Your task to perform on an android device: Open Google Maps Image 0: 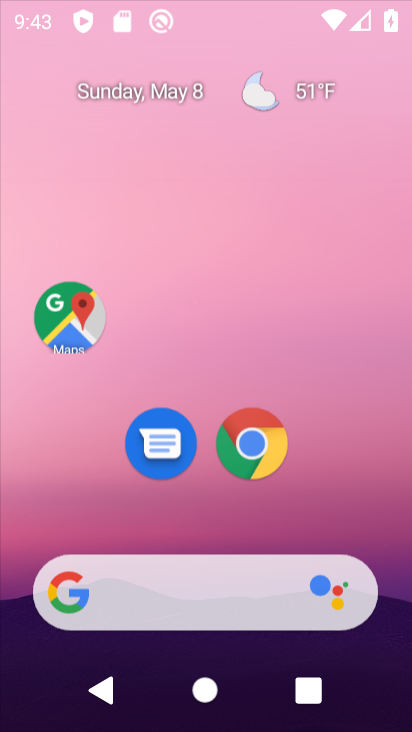
Step 0: press home button
Your task to perform on an android device: Open Google Maps Image 1: 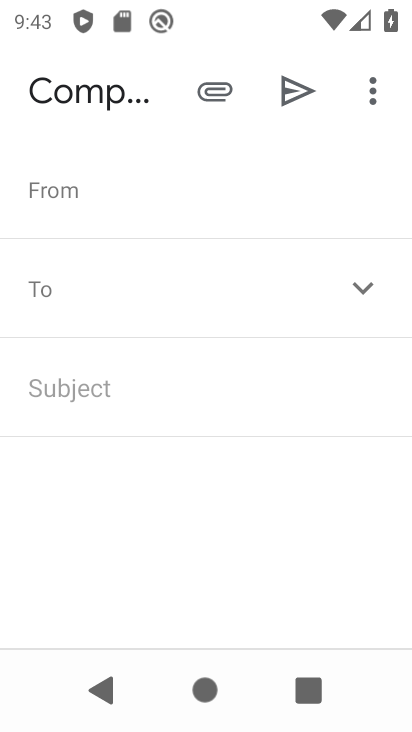
Step 1: click (190, 0)
Your task to perform on an android device: Open Google Maps Image 2: 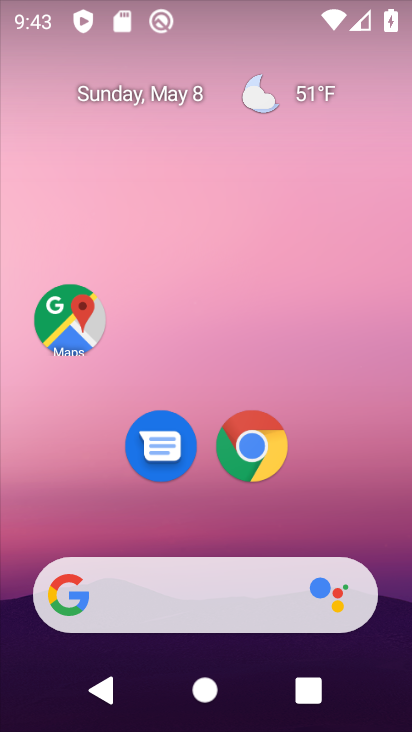
Step 2: drag from (205, 537) to (190, 23)
Your task to perform on an android device: Open Google Maps Image 3: 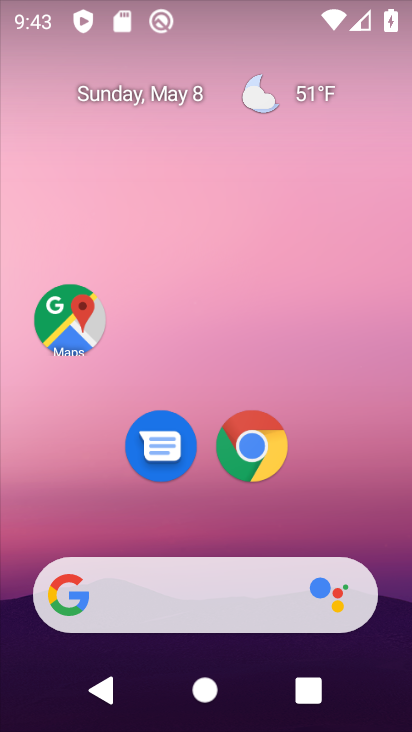
Step 3: click (62, 315)
Your task to perform on an android device: Open Google Maps Image 4: 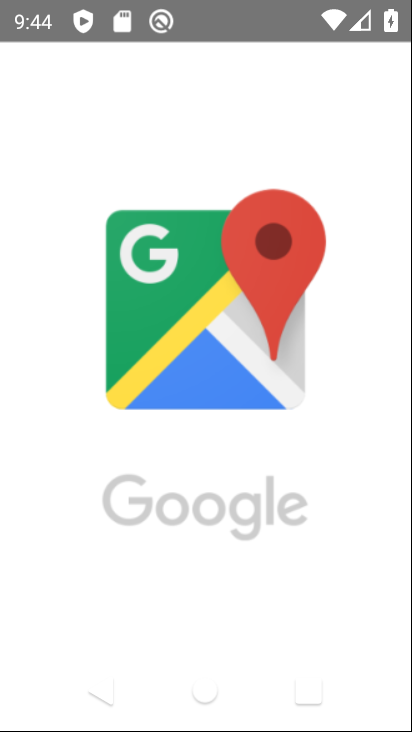
Step 4: task complete